Your task to perform on an android device: turn pop-ups on in chrome Image 0: 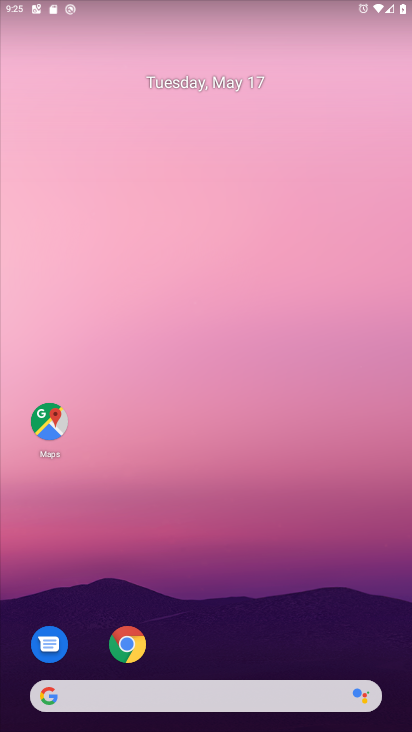
Step 0: press home button
Your task to perform on an android device: turn pop-ups on in chrome Image 1: 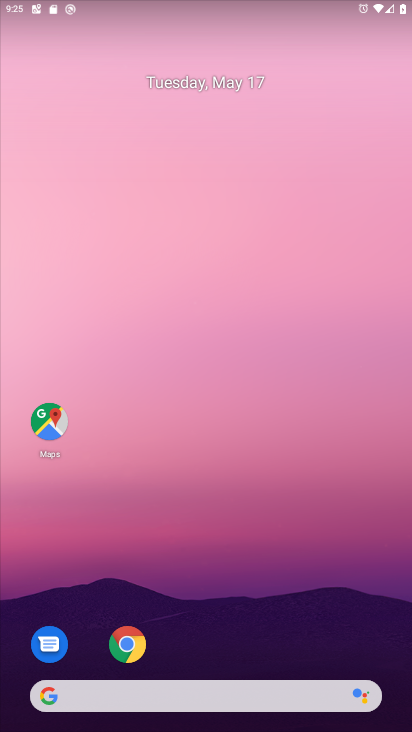
Step 1: click (126, 641)
Your task to perform on an android device: turn pop-ups on in chrome Image 2: 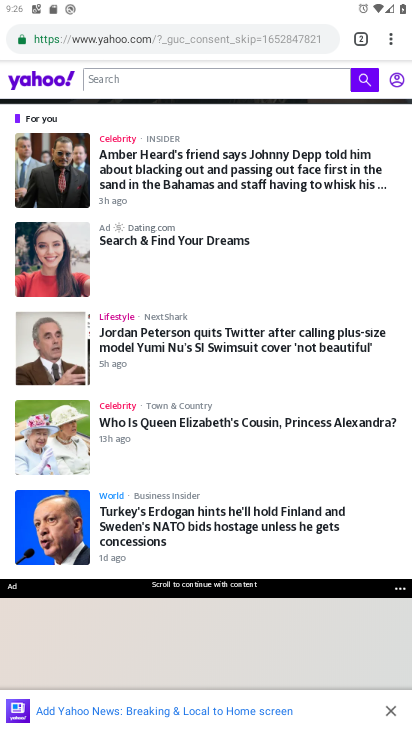
Step 2: click (390, 36)
Your task to perform on an android device: turn pop-ups on in chrome Image 3: 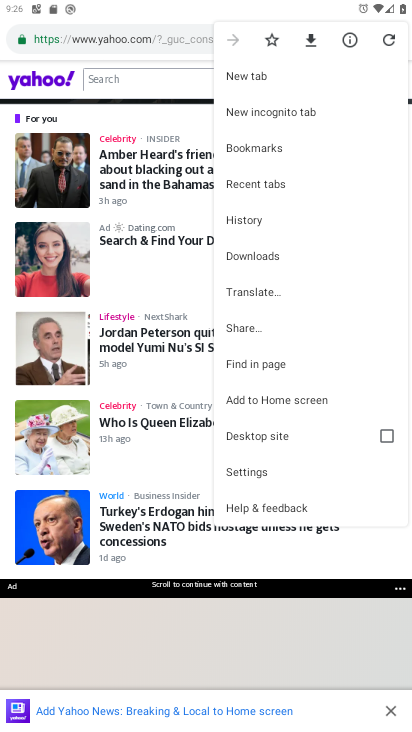
Step 3: click (277, 470)
Your task to perform on an android device: turn pop-ups on in chrome Image 4: 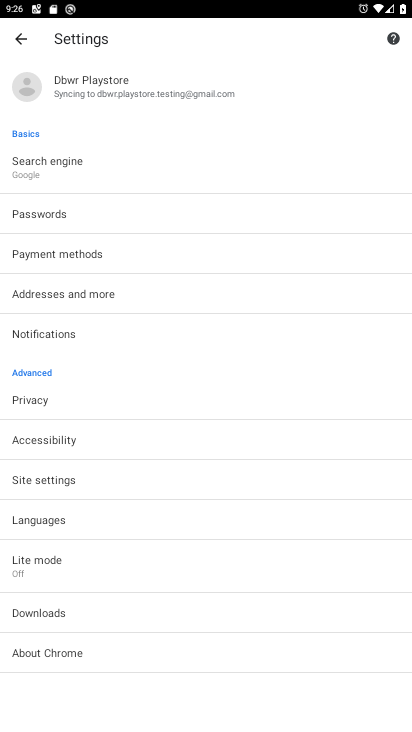
Step 4: click (95, 476)
Your task to perform on an android device: turn pop-ups on in chrome Image 5: 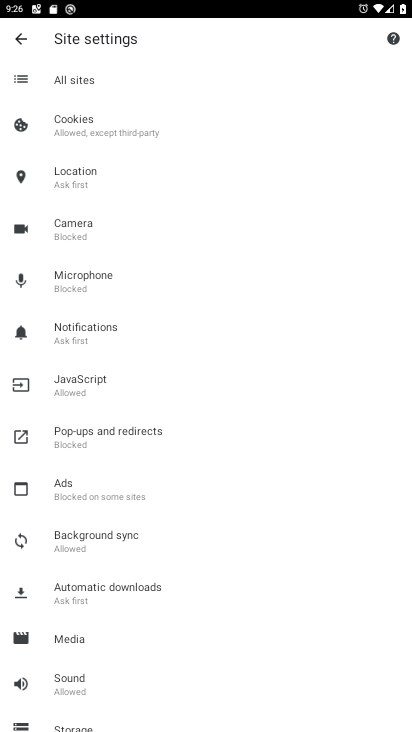
Step 5: click (130, 436)
Your task to perform on an android device: turn pop-ups on in chrome Image 6: 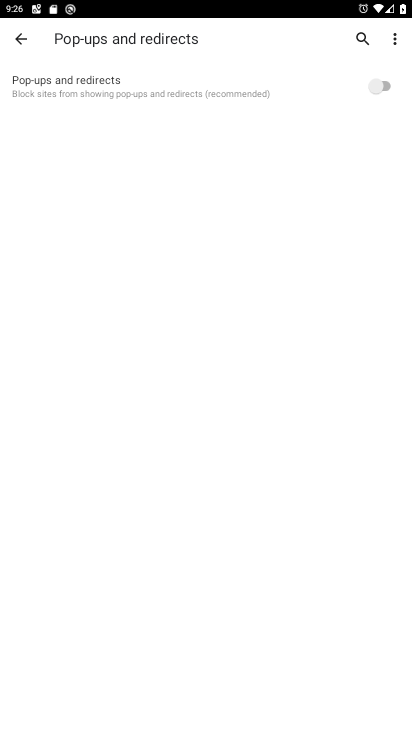
Step 6: click (388, 81)
Your task to perform on an android device: turn pop-ups on in chrome Image 7: 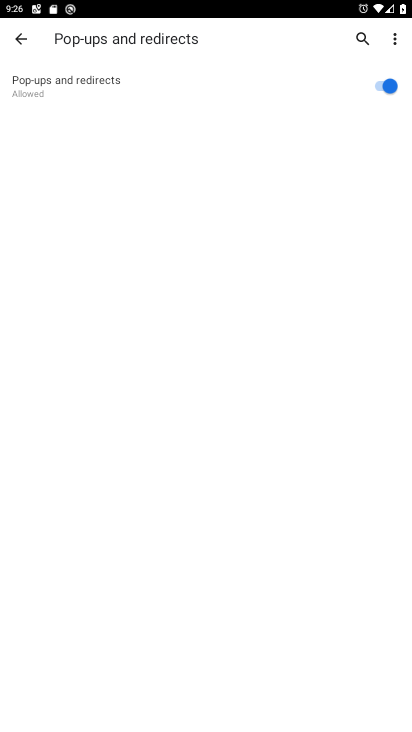
Step 7: task complete